Your task to perform on an android device: turn off airplane mode Image 0: 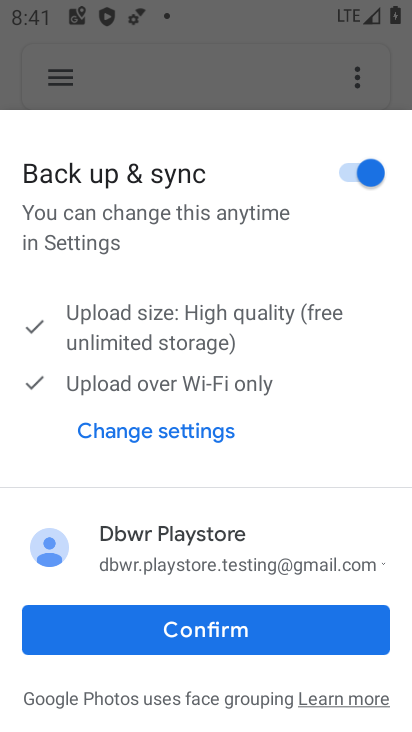
Step 0: press home button
Your task to perform on an android device: turn off airplane mode Image 1: 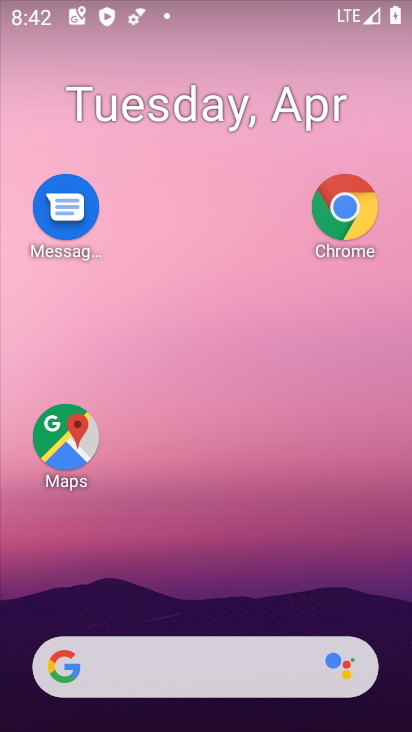
Step 1: drag from (181, 617) to (165, 9)
Your task to perform on an android device: turn off airplane mode Image 2: 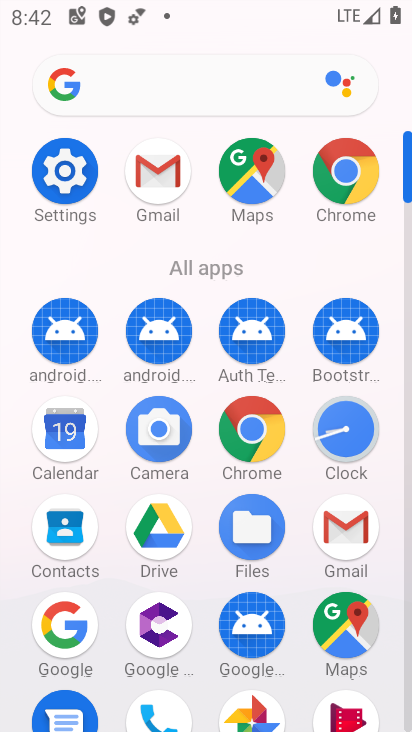
Step 2: click (64, 170)
Your task to perform on an android device: turn off airplane mode Image 3: 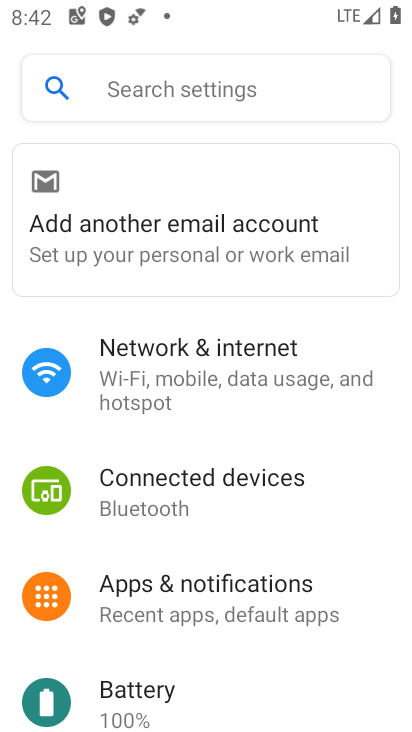
Step 3: click (161, 351)
Your task to perform on an android device: turn off airplane mode Image 4: 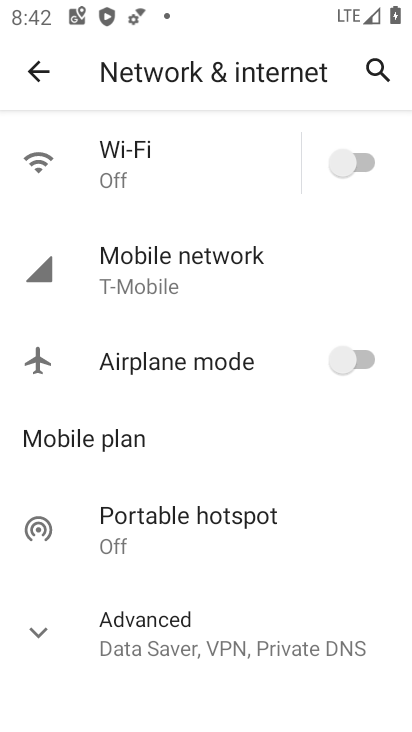
Step 4: task complete